Your task to perform on an android device: Open Yahoo.com Image 0: 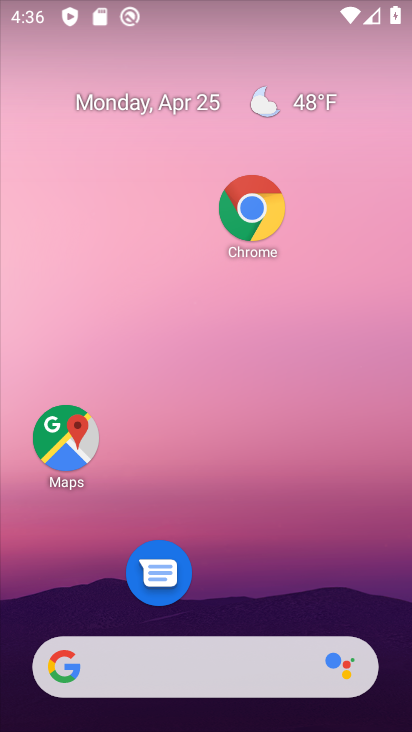
Step 0: click (244, 221)
Your task to perform on an android device: Open Yahoo.com Image 1: 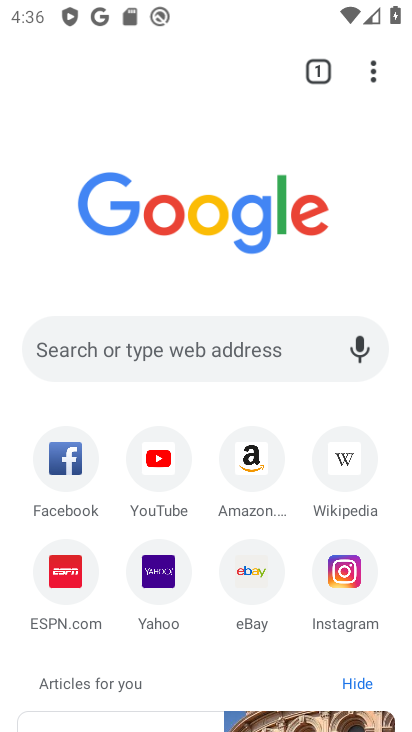
Step 1: click (168, 568)
Your task to perform on an android device: Open Yahoo.com Image 2: 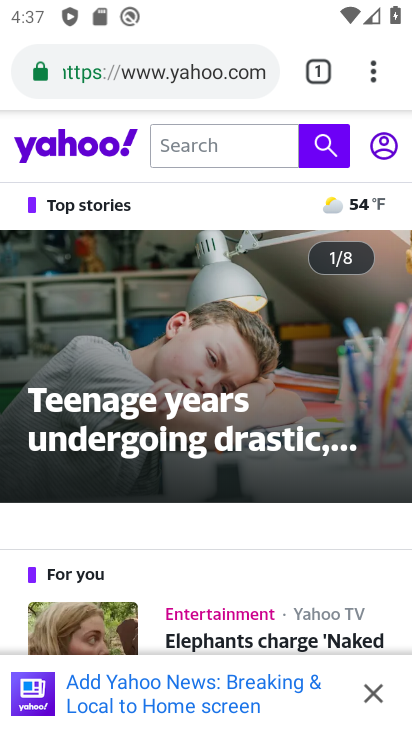
Step 2: task complete